Your task to perform on an android device: turn off location history Image 0: 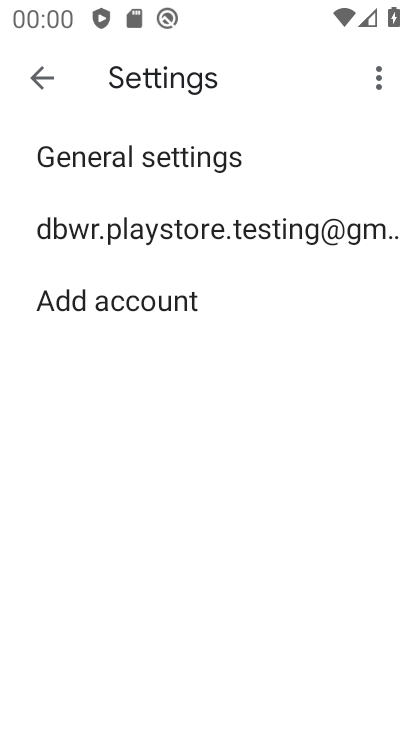
Step 0: press home button
Your task to perform on an android device: turn off location history Image 1: 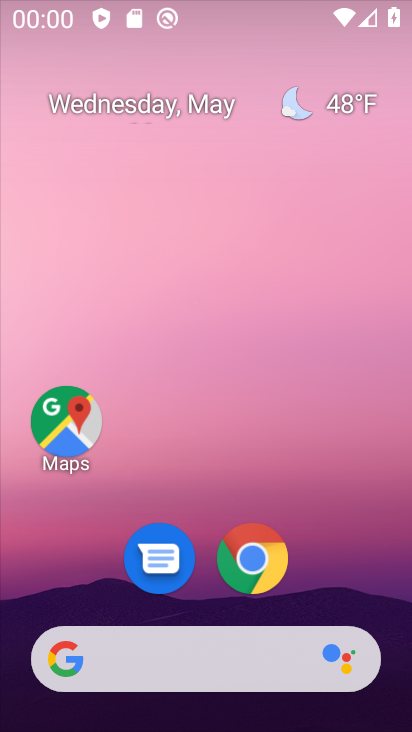
Step 1: drag from (364, 546) to (318, 133)
Your task to perform on an android device: turn off location history Image 2: 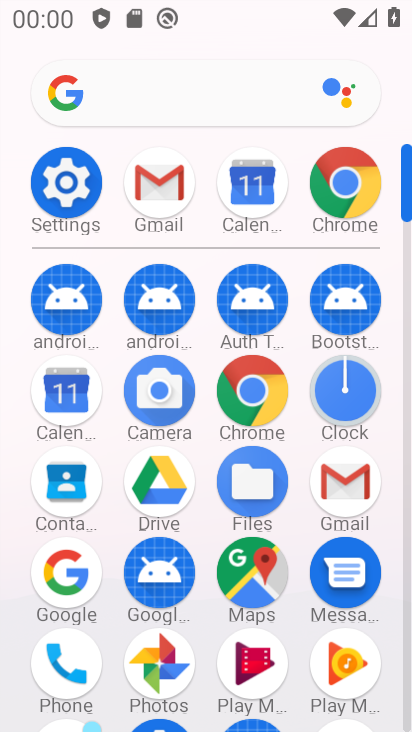
Step 2: click (61, 209)
Your task to perform on an android device: turn off location history Image 3: 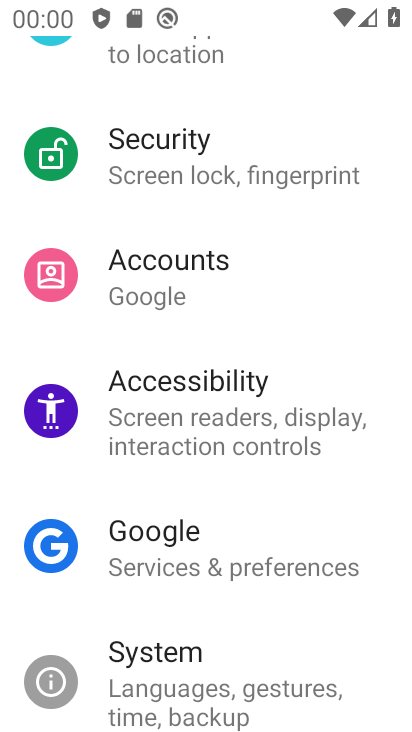
Step 3: drag from (245, 622) to (295, 233)
Your task to perform on an android device: turn off location history Image 4: 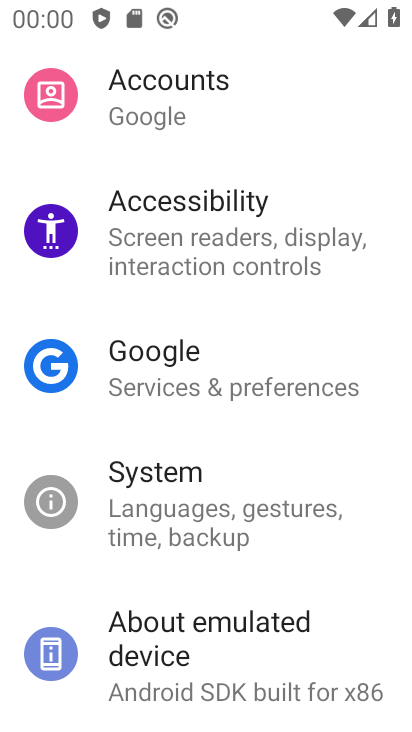
Step 4: drag from (298, 181) to (296, 674)
Your task to perform on an android device: turn off location history Image 5: 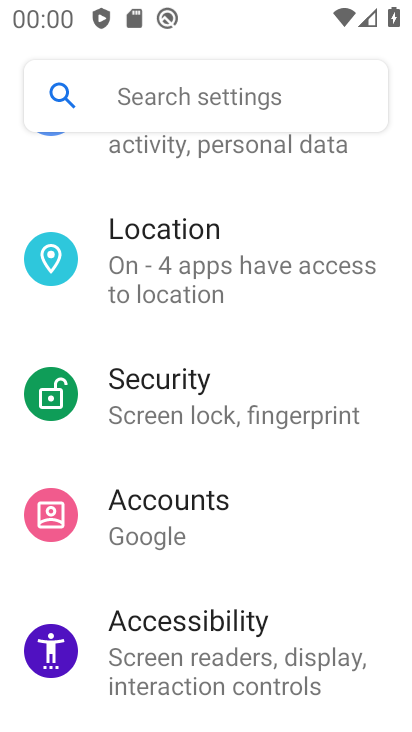
Step 5: click (190, 250)
Your task to perform on an android device: turn off location history Image 6: 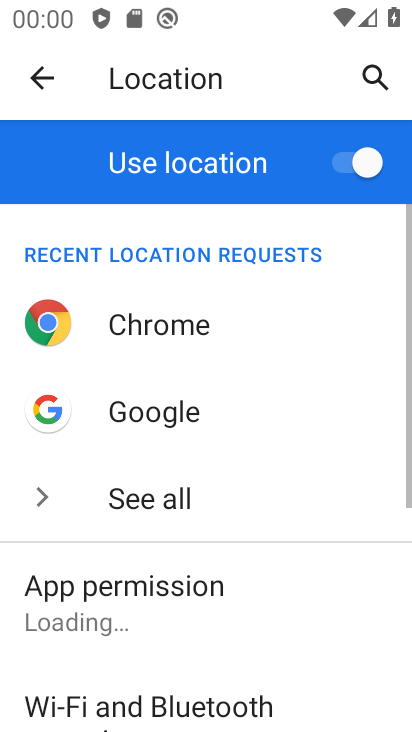
Step 6: drag from (299, 599) to (317, 255)
Your task to perform on an android device: turn off location history Image 7: 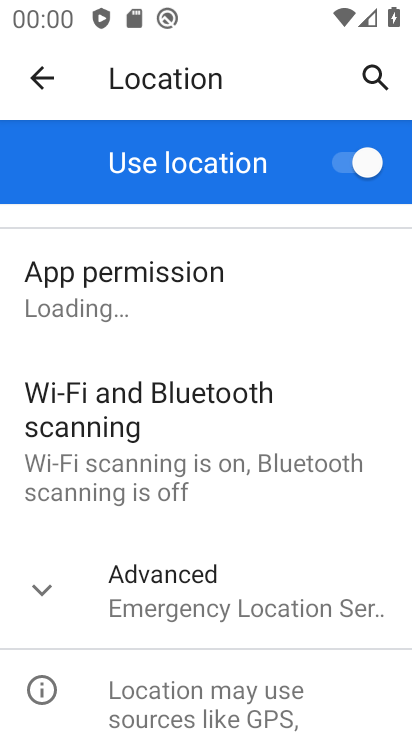
Step 7: click (293, 617)
Your task to perform on an android device: turn off location history Image 8: 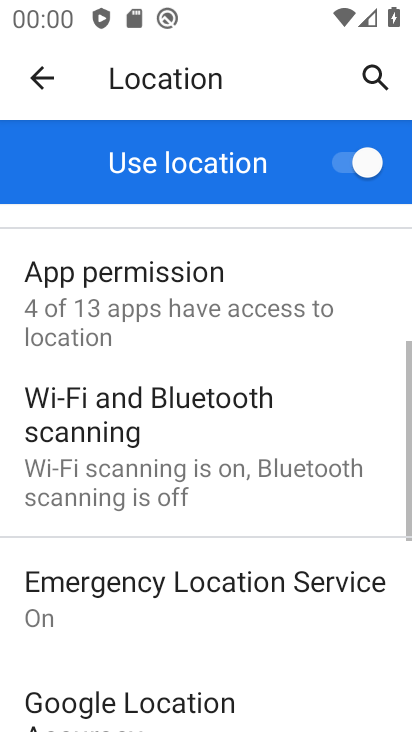
Step 8: drag from (268, 651) to (286, 327)
Your task to perform on an android device: turn off location history Image 9: 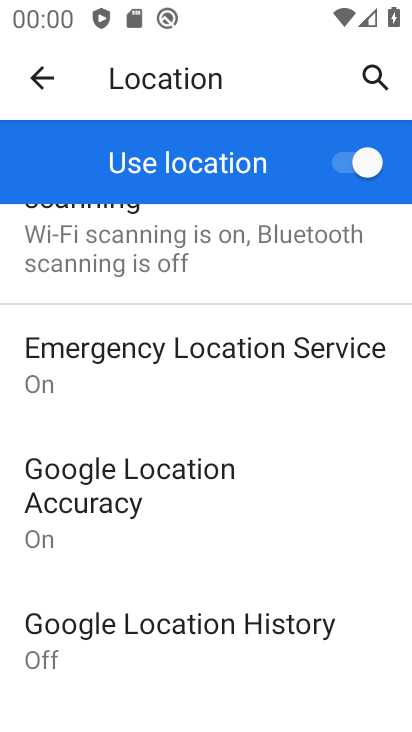
Step 9: click (247, 644)
Your task to perform on an android device: turn off location history Image 10: 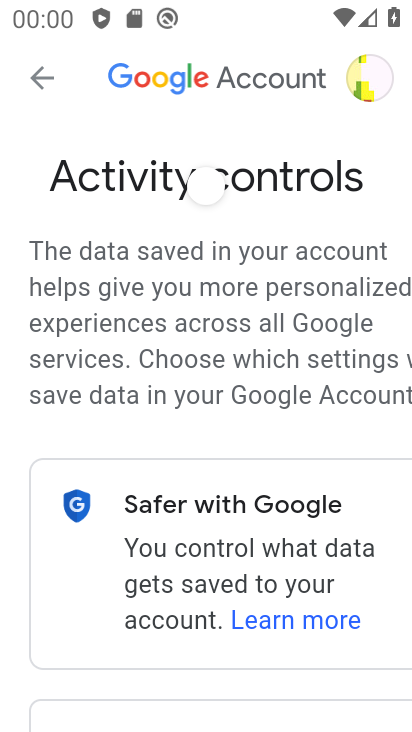
Step 10: task complete